Your task to perform on an android device: Open the phone app and click the voicemail tab. Image 0: 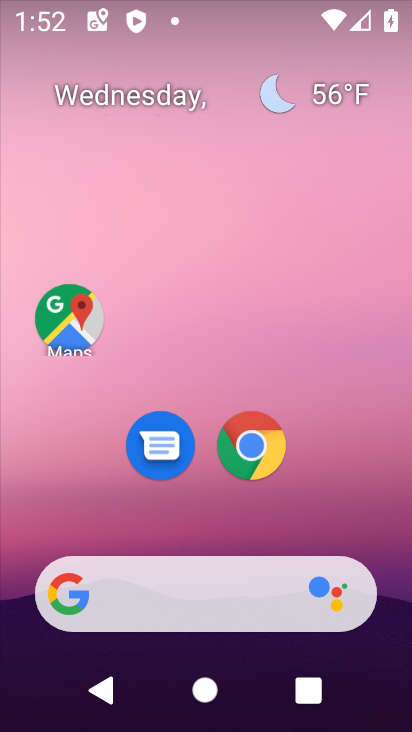
Step 0: drag from (194, 529) to (135, 67)
Your task to perform on an android device: Open the phone app and click the voicemail tab. Image 1: 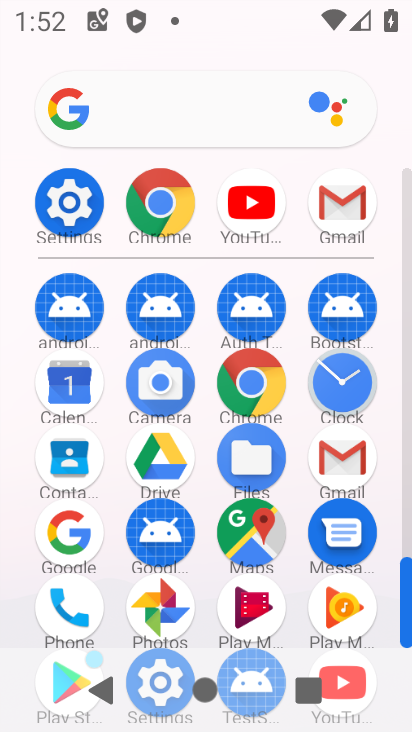
Step 1: click (52, 597)
Your task to perform on an android device: Open the phone app and click the voicemail tab. Image 2: 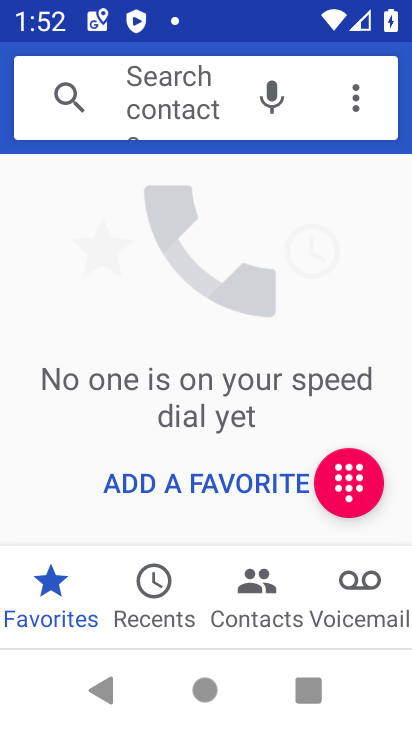
Step 2: click (386, 596)
Your task to perform on an android device: Open the phone app and click the voicemail tab. Image 3: 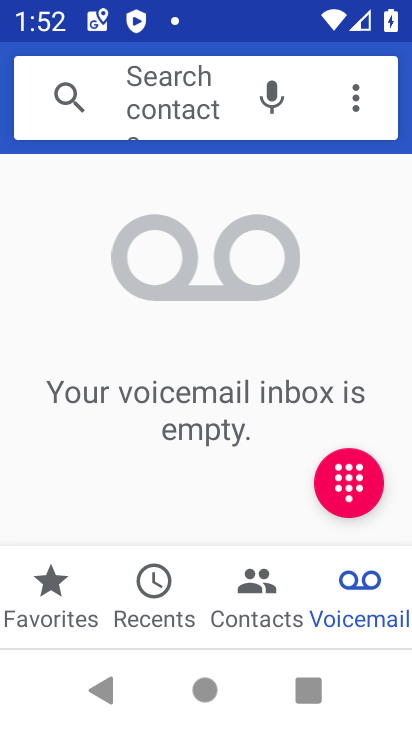
Step 3: task complete